Your task to perform on an android device: Open ESPN.com Image 0: 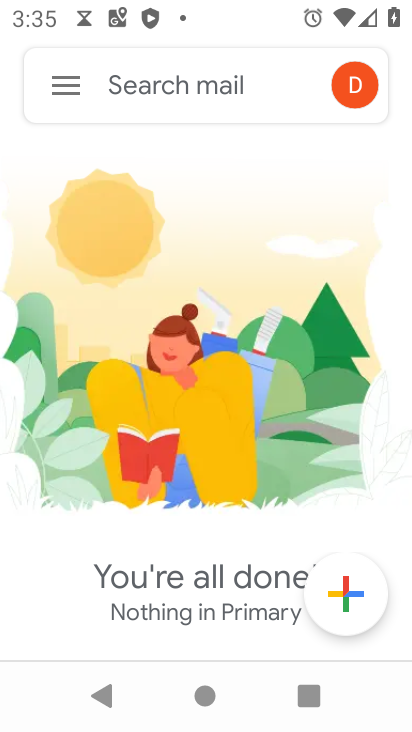
Step 0: press home button
Your task to perform on an android device: Open ESPN.com Image 1: 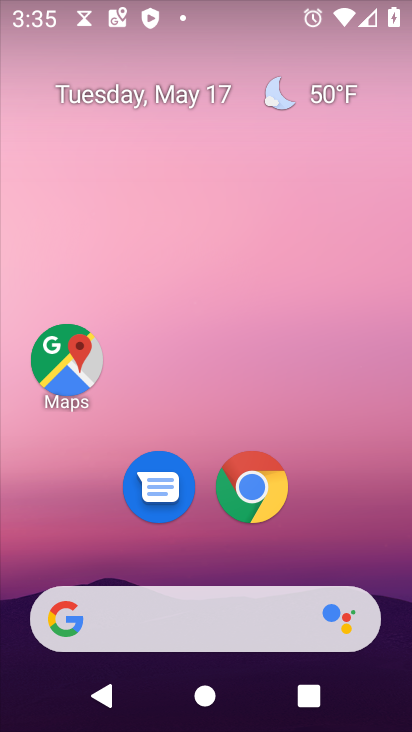
Step 1: click (249, 481)
Your task to perform on an android device: Open ESPN.com Image 2: 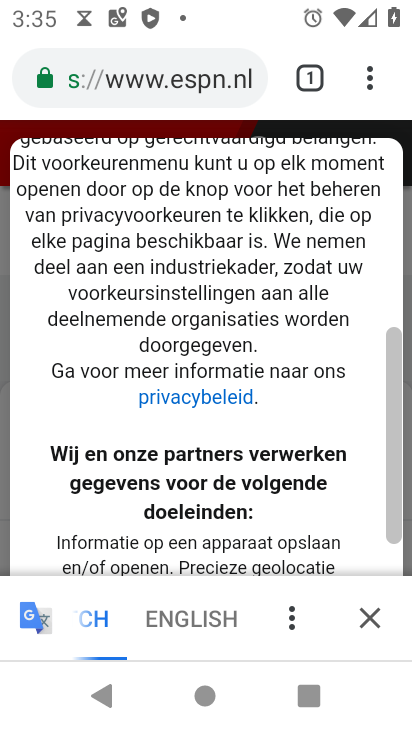
Step 2: task complete